Your task to perform on an android device: open a new tab in the chrome app Image 0: 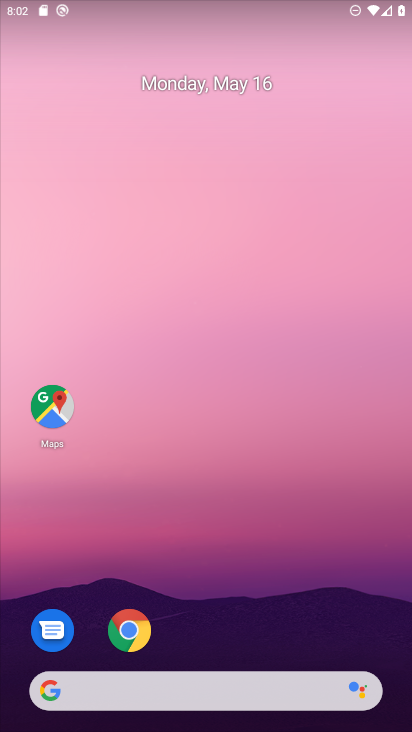
Step 0: click (132, 630)
Your task to perform on an android device: open a new tab in the chrome app Image 1: 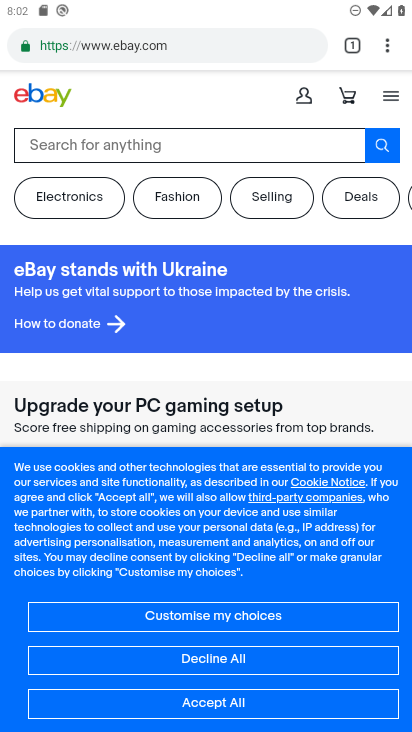
Step 1: click (355, 36)
Your task to perform on an android device: open a new tab in the chrome app Image 2: 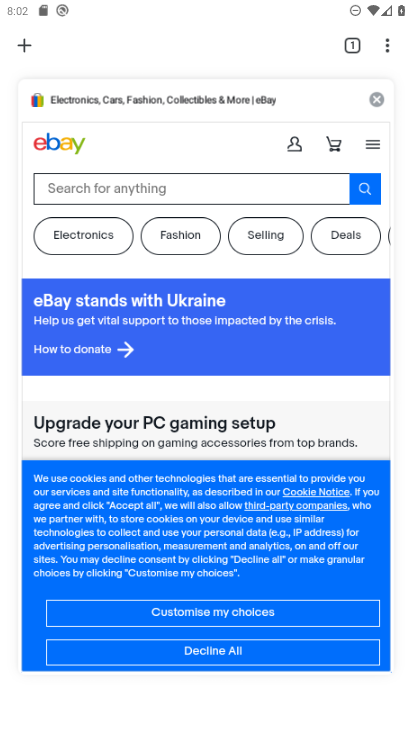
Step 2: click (21, 43)
Your task to perform on an android device: open a new tab in the chrome app Image 3: 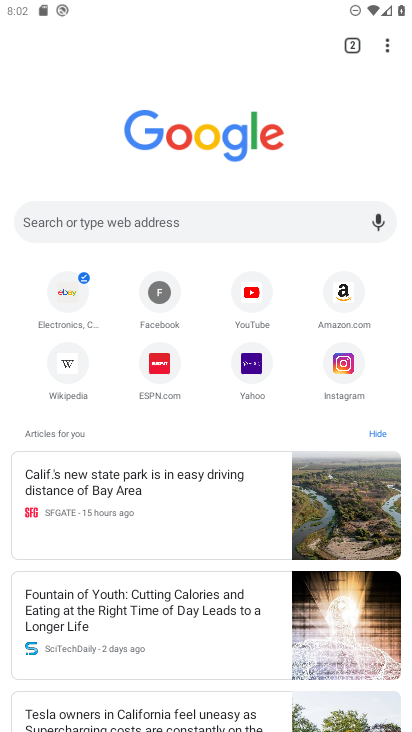
Step 3: task complete